Your task to perform on an android device: Search for Mexican restaurants on Maps Image 0: 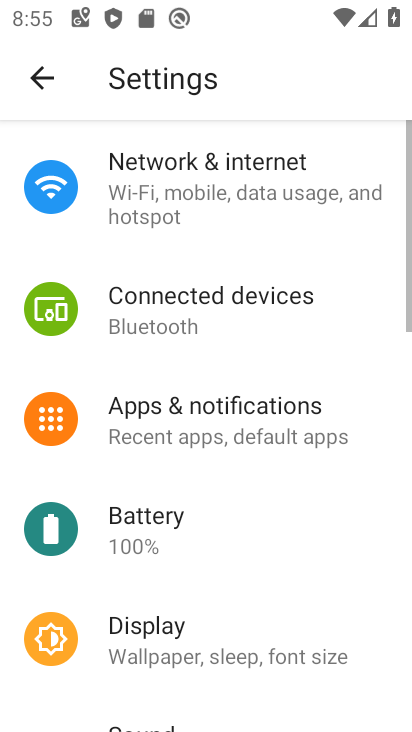
Step 0: press back button
Your task to perform on an android device: Search for Mexican restaurants on Maps Image 1: 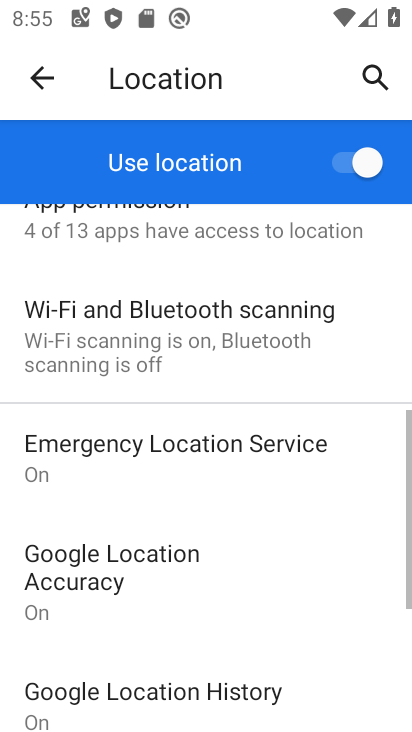
Step 1: press back button
Your task to perform on an android device: Search for Mexican restaurants on Maps Image 2: 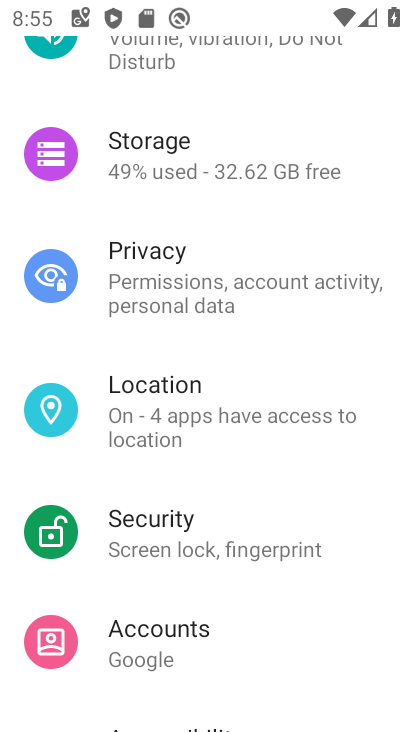
Step 2: press back button
Your task to perform on an android device: Search for Mexican restaurants on Maps Image 3: 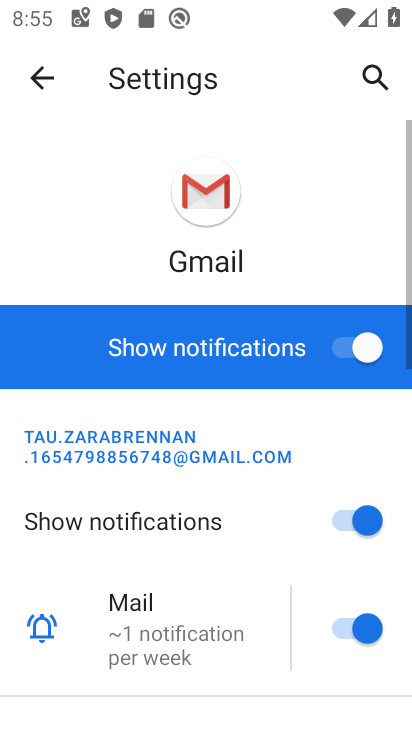
Step 3: press back button
Your task to perform on an android device: Search for Mexican restaurants on Maps Image 4: 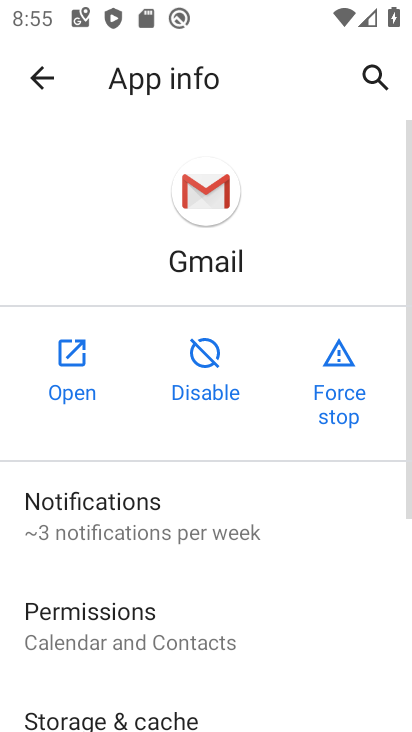
Step 4: press back button
Your task to perform on an android device: Search for Mexican restaurants on Maps Image 5: 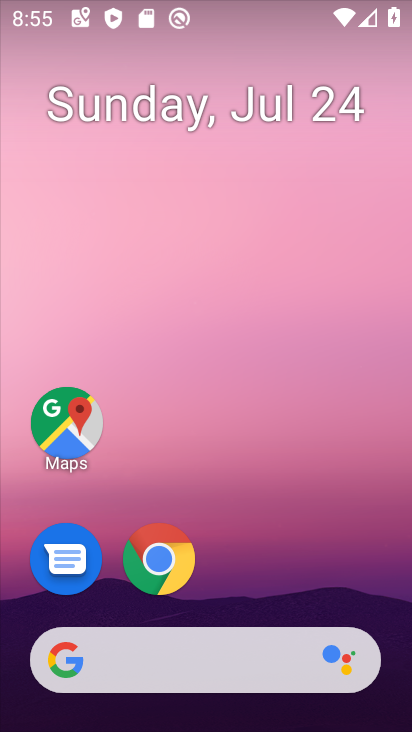
Step 5: click (62, 417)
Your task to perform on an android device: Search for Mexican restaurants on Maps Image 6: 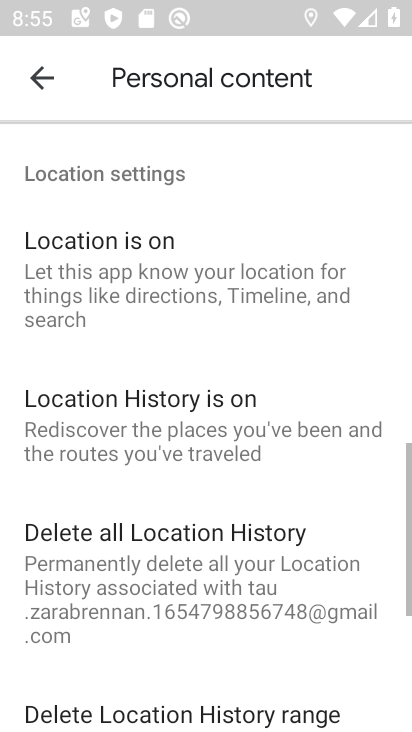
Step 6: click (44, 85)
Your task to perform on an android device: Search for Mexican restaurants on Maps Image 7: 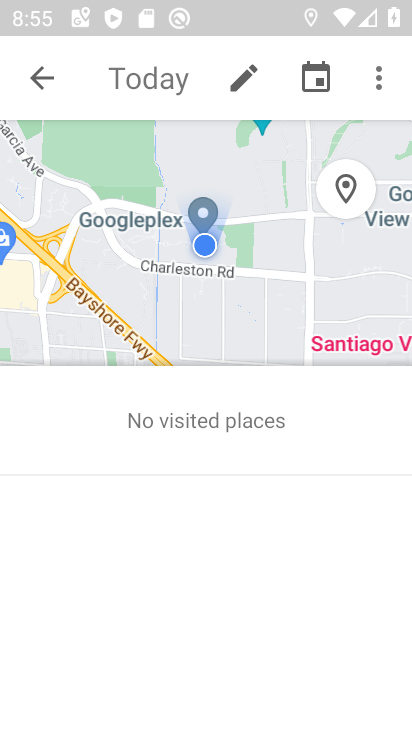
Step 7: click (36, 79)
Your task to perform on an android device: Search for Mexican restaurants on Maps Image 8: 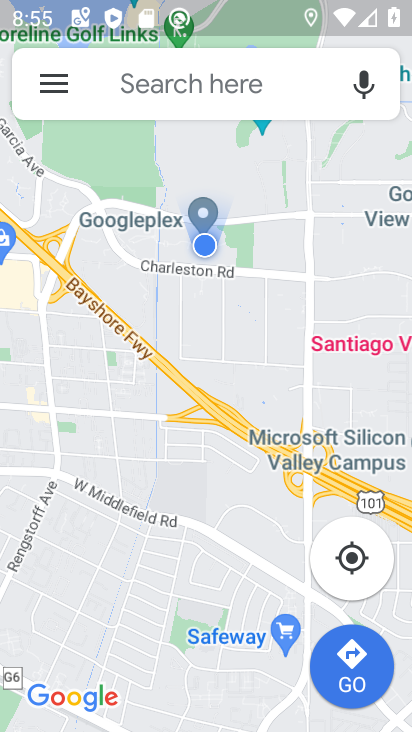
Step 8: click (198, 84)
Your task to perform on an android device: Search for Mexican restaurants on Maps Image 9: 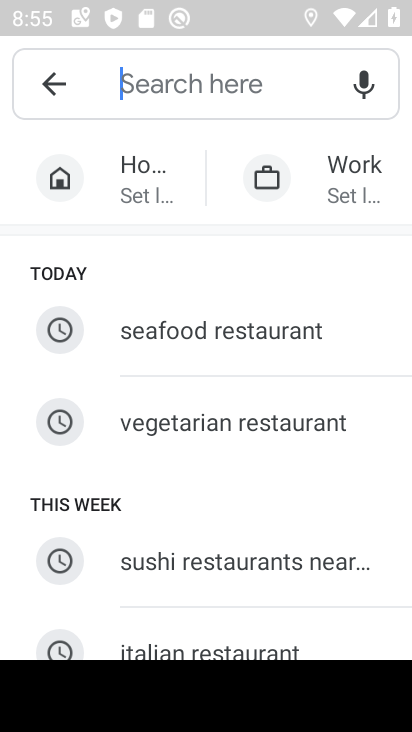
Step 9: drag from (147, 605) to (220, 113)
Your task to perform on an android device: Search for Mexican restaurants on Maps Image 10: 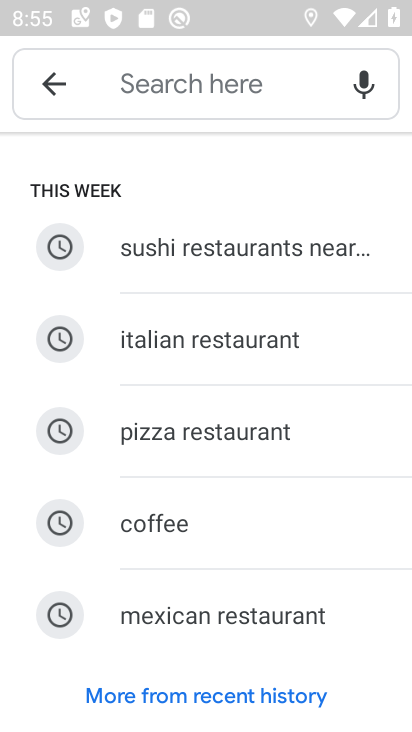
Step 10: click (158, 614)
Your task to perform on an android device: Search for Mexican restaurants on Maps Image 11: 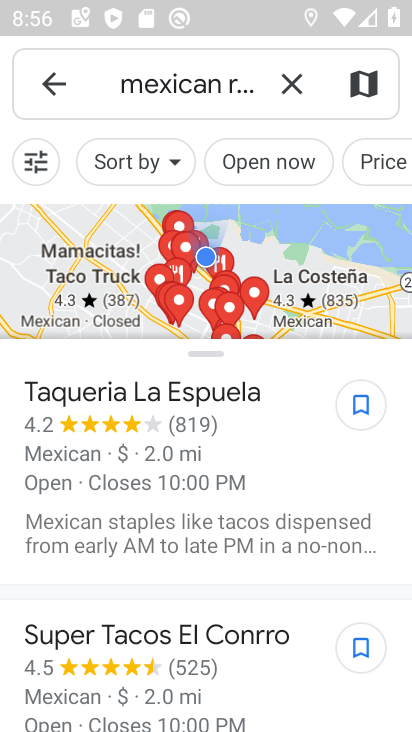
Step 11: task complete